Your task to perform on an android device: Open calendar and show me the third week of next month Image 0: 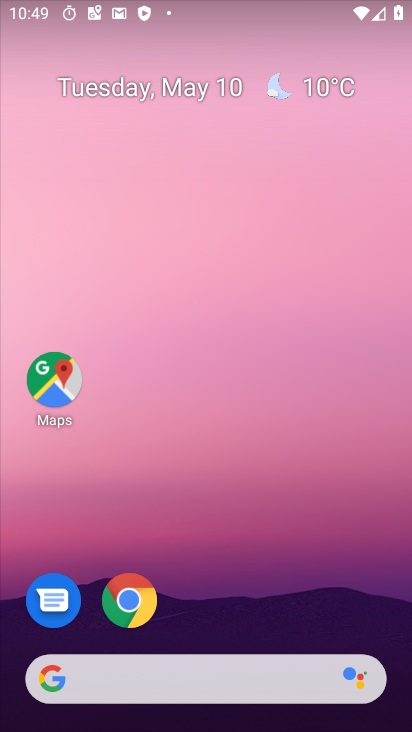
Step 0: drag from (266, 535) to (191, 23)
Your task to perform on an android device: Open calendar and show me the third week of next month Image 1: 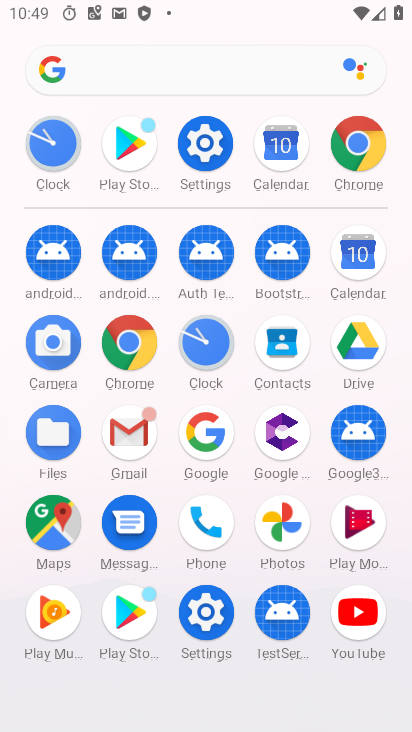
Step 1: drag from (12, 531) to (12, 204)
Your task to perform on an android device: Open calendar and show me the third week of next month Image 2: 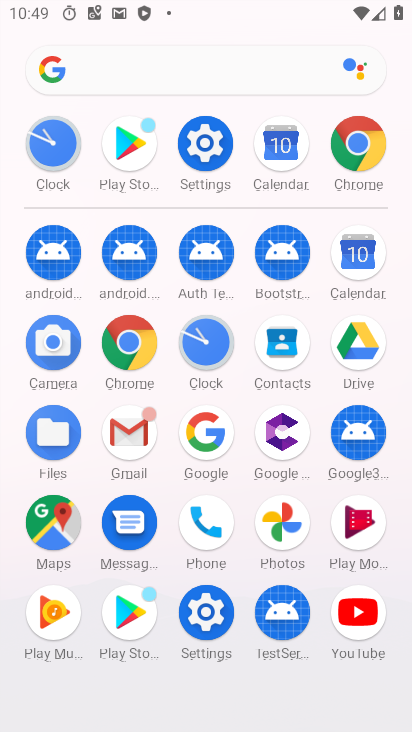
Step 2: click (357, 253)
Your task to perform on an android device: Open calendar and show me the third week of next month Image 3: 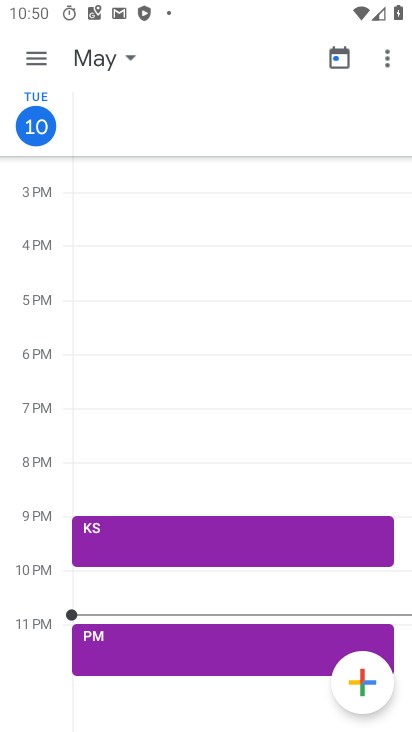
Step 3: click (109, 59)
Your task to perform on an android device: Open calendar and show me the third week of next month Image 4: 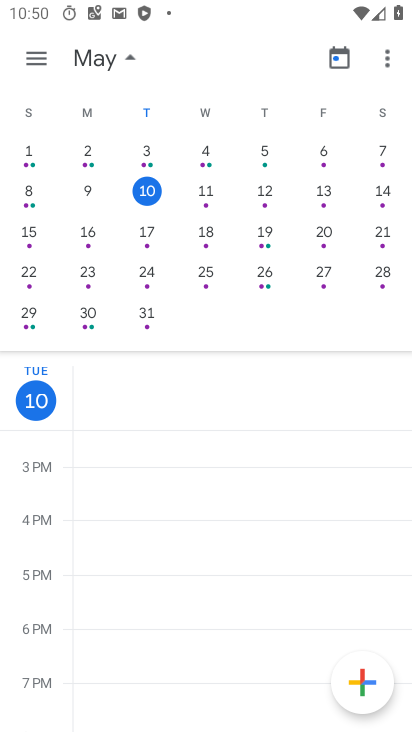
Step 4: drag from (393, 246) to (5, 219)
Your task to perform on an android device: Open calendar and show me the third week of next month Image 5: 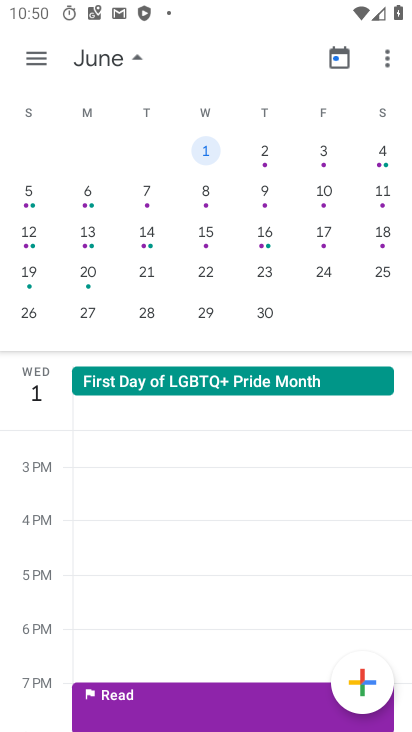
Step 5: click (22, 235)
Your task to perform on an android device: Open calendar and show me the third week of next month Image 6: 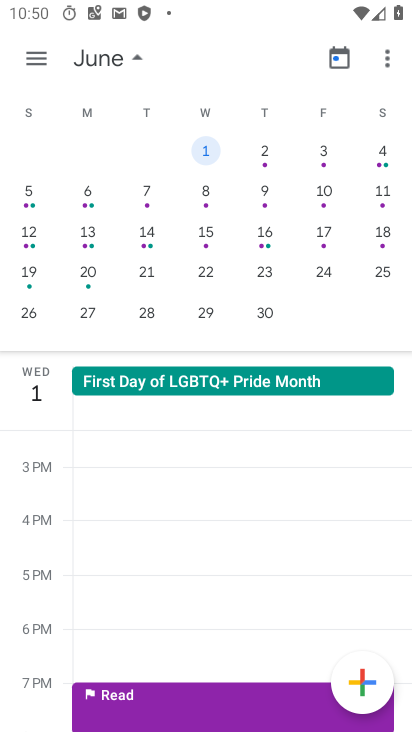
Step 6: click (24, 232)
Your task to perform on an android device: Open calendar and show me the third week of next month Image 7: 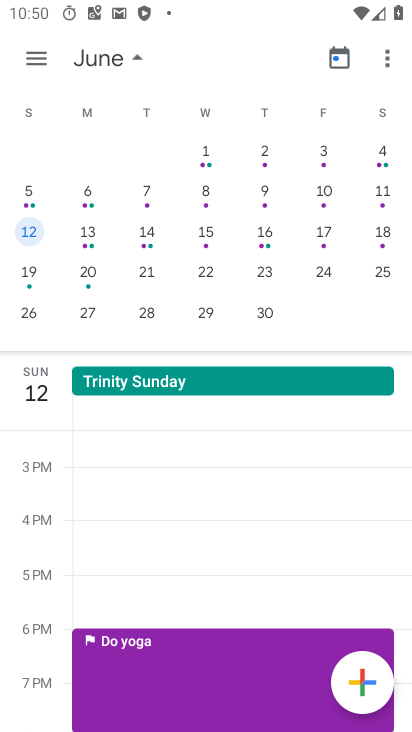
Step 7: click (33, 46)
Your task to perform on an android device: Open calendar and show me the third week of next month Image 8: 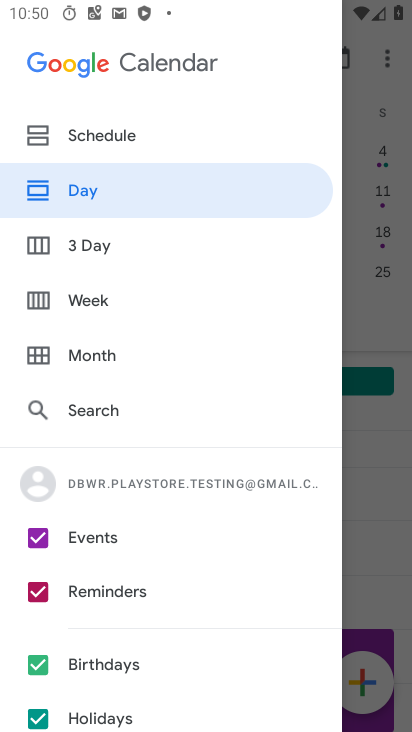
Step 8: click (112, 307)
Your task to perform on an android device: Open calendar and show me the third week of next month Image 9: 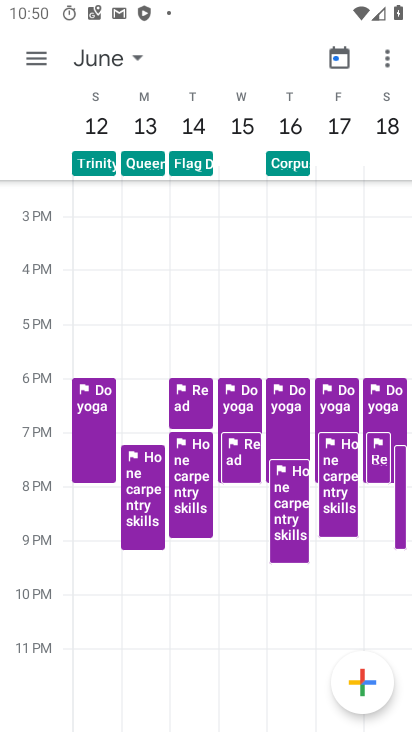
Step 9: task complete